Your task to perform on an android device: toggle sleep mode Image 0: 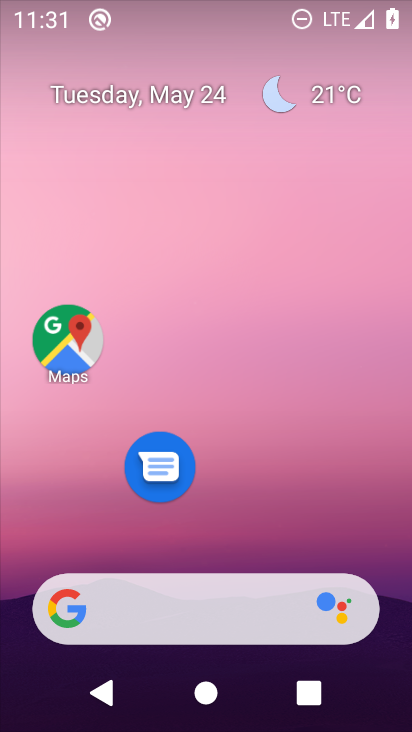
Step 0: drag from (196, 528) to (230, 153)
Your task to perform on an android device: toggle sleep mode Image 1: 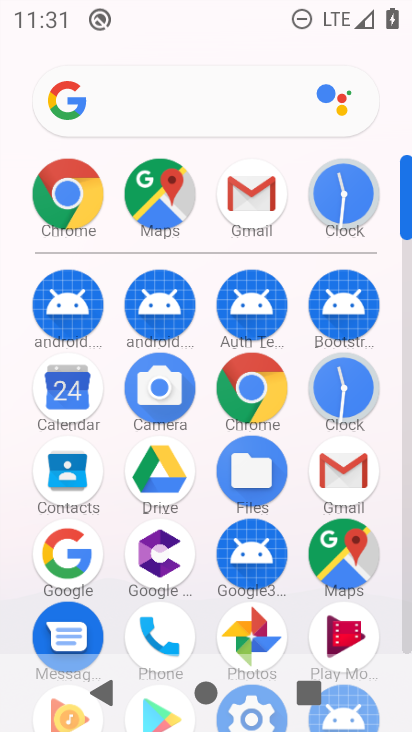
Step 1: drag from (194, 609) to (195, 171)
Your task to perform on an android device: toggle sleep mode Image 2: 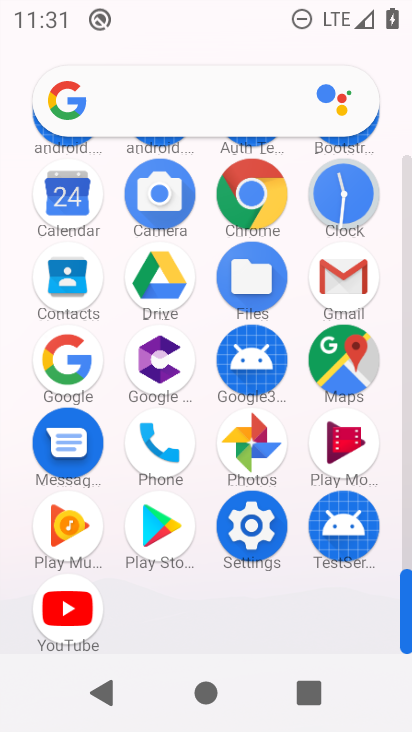
Step 2: click (242, 529)
Your task to perform on an android device: toggle sleep mode Image 3: 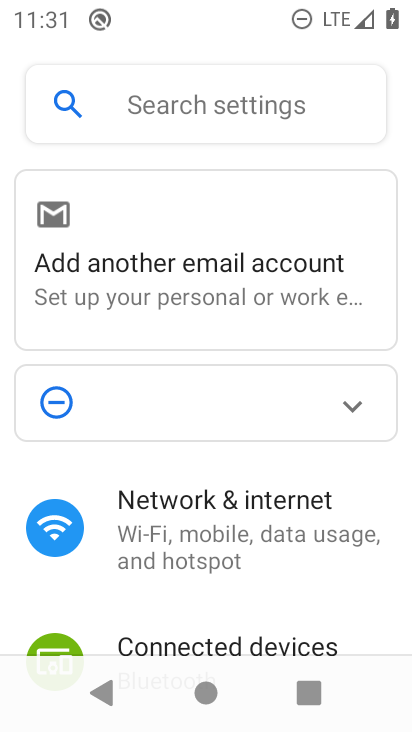
Step 3: drag from (233, 489) to (233, 181)
Your task to perform on an android device: toggle sleep mode Image 4: 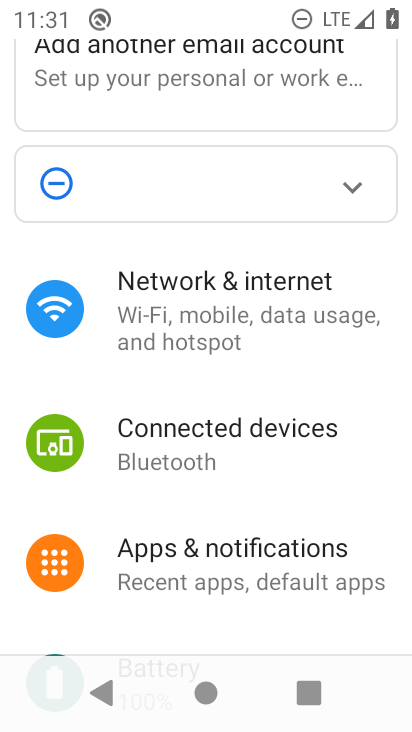
Step 4: drag from (234, 588) to (235, 238)
Your task to perform on an android device: toggle sleep mode Image 5: 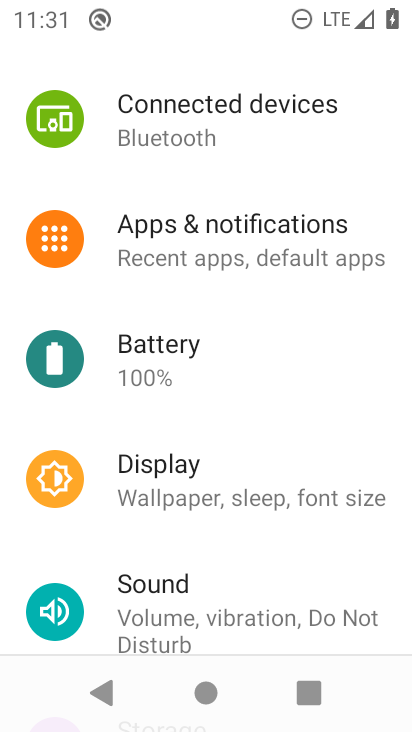
Step 5: click (192, 239)
Your task to perform on an android device: toggle sleep mode Image 6: 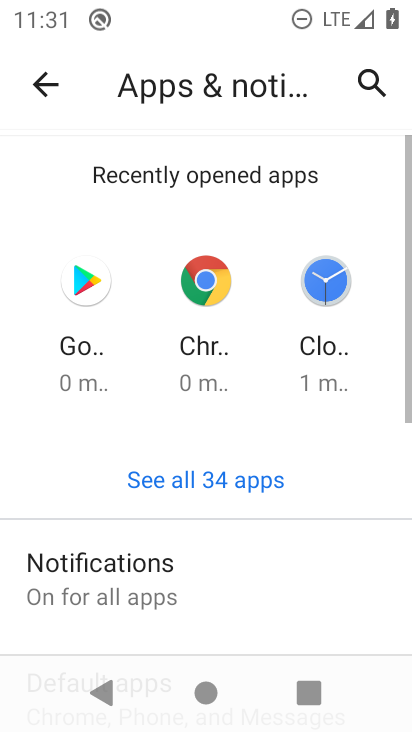
Step 6: drag from (248, 511) to (305, 145)
Your task to perform on an android device: toggle sleep mode Image 7: 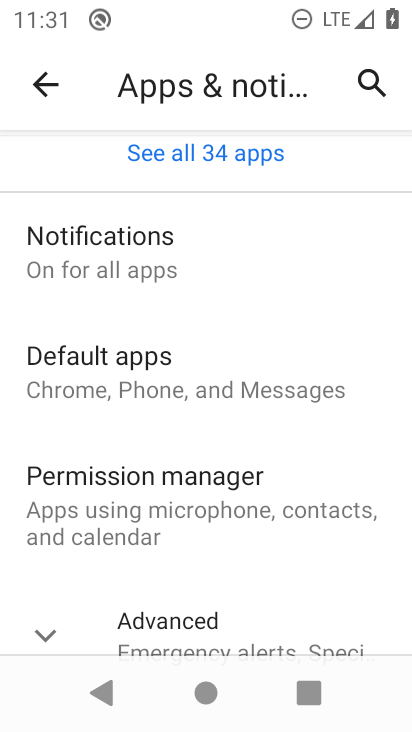
Step 7: click (186, 263)
Your task to perform on an android device: toggle sleep mode Image 8: 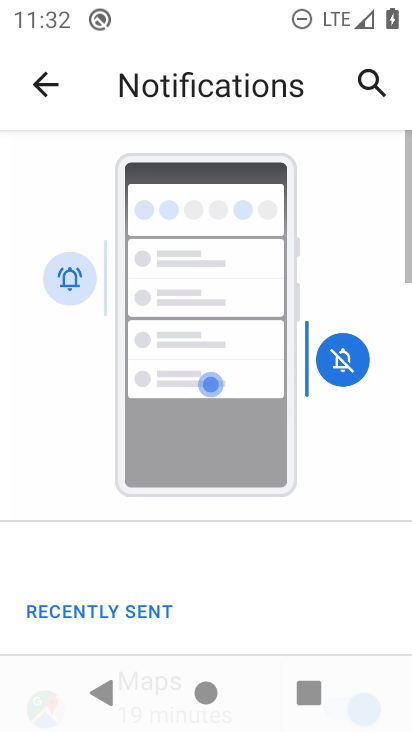
Step 8: drag from (210, 517) to (273, 80)
Your task to perform on an android device: toggle sleep mode Image 9: 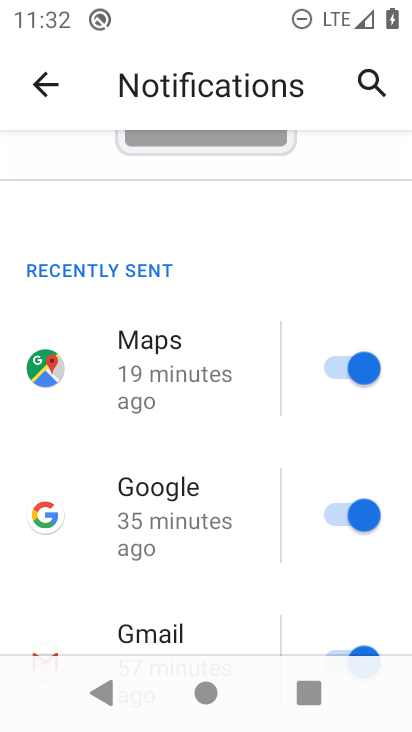
Step 9: drag from (267, 571) to (307, 123)
Your task to perform on an android device: toggle sleep mode Image 10: 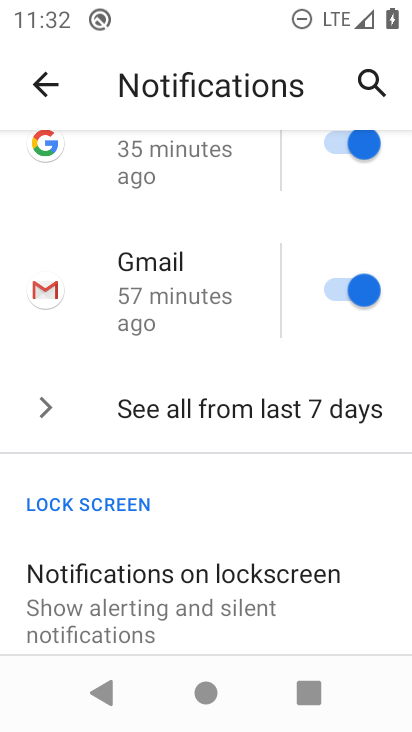
Step 10: drag from (263, 467) to (297, 209)
Your task to perform on an android device: toggle sleep mode Image 11: 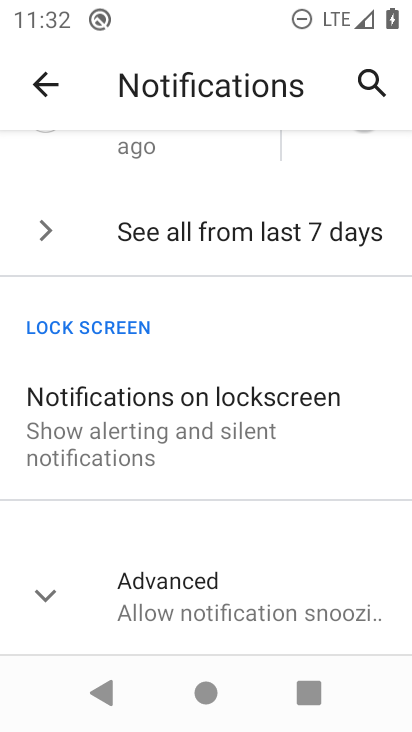
Step 11: click (215, 597)
Your task to perform on an android device: toggle sleep mode Image 12: 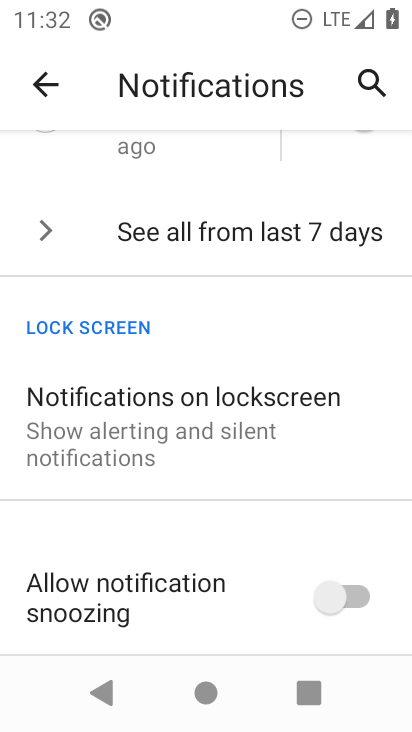
Step 12: click (39, 83)
Your task to perform on an android device: toggle sleep mode Image 13: 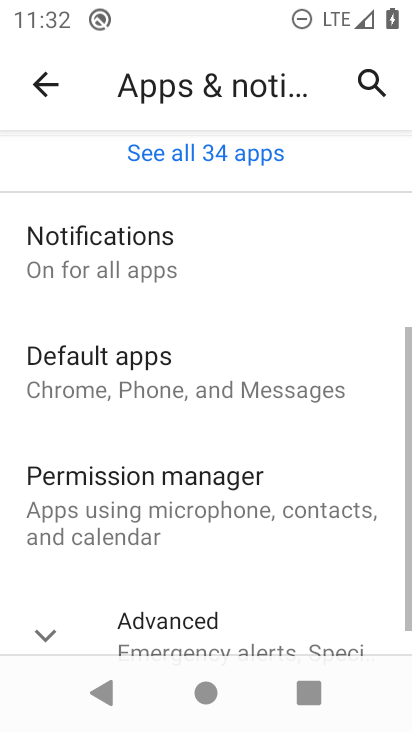
Step 13: drag from (191, 516) to (219, 155)
Your task to perform on an android device: toggle sleep mode Image 14: 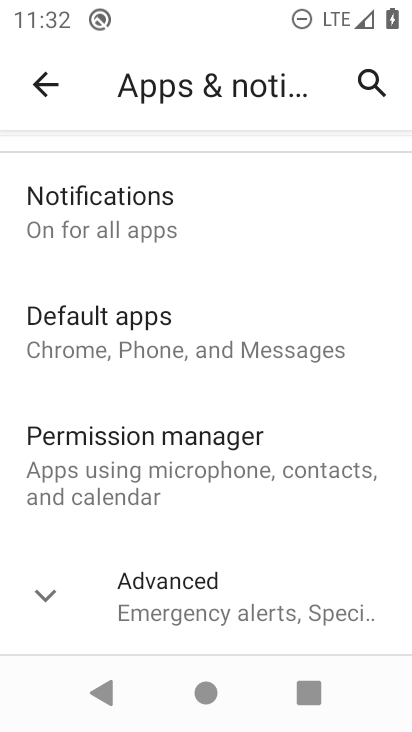
Step 14: click (53, 71)
Your task to perform on an android device: toggle sleep mode Image 15: 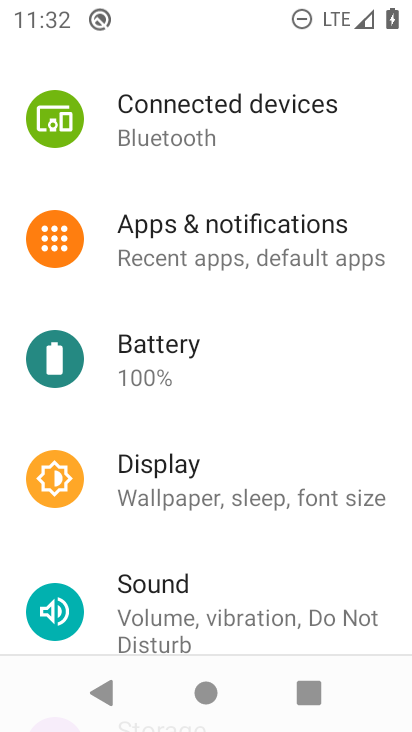
Step 15: drag from (244, 494) to (226, 268)
Your task to perform on an android device: toggle sleep mode Image 16: 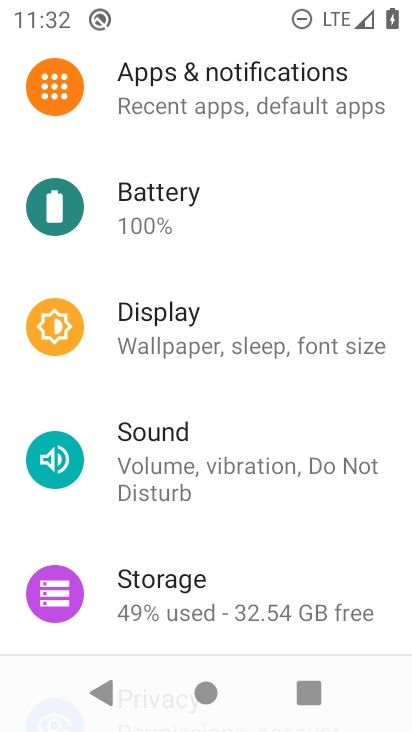
Step 16: click (205, 356)
Your task to perform on an android device: toggle sleep mode Image 17: 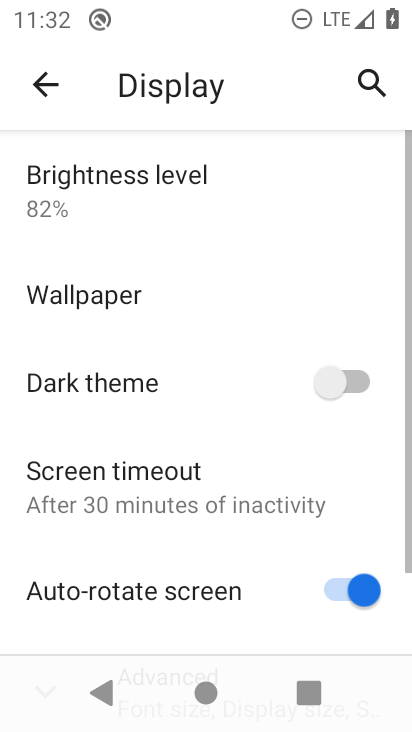
Step 17: drag from (198, 491) to (235, 240)
Your task to perform on an android device: toggle sleep mode Image 18: 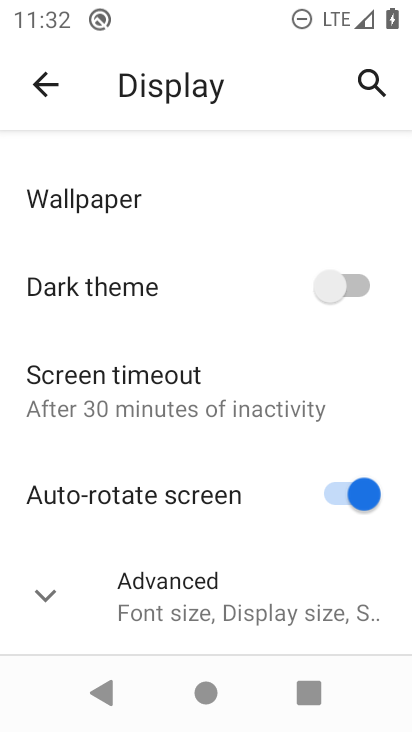
Step 18: click (232, 378)
Your task to perform on an android device: toggle sleep mode Image 19: 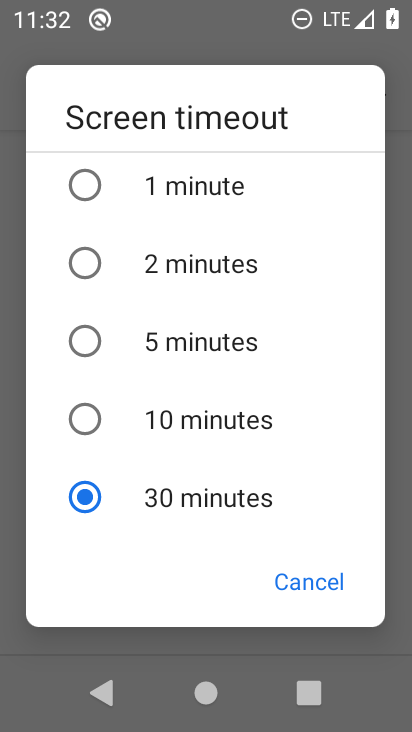
Step 19: task complete